Your task to perform on an android device: What's the weather today? Image 0: 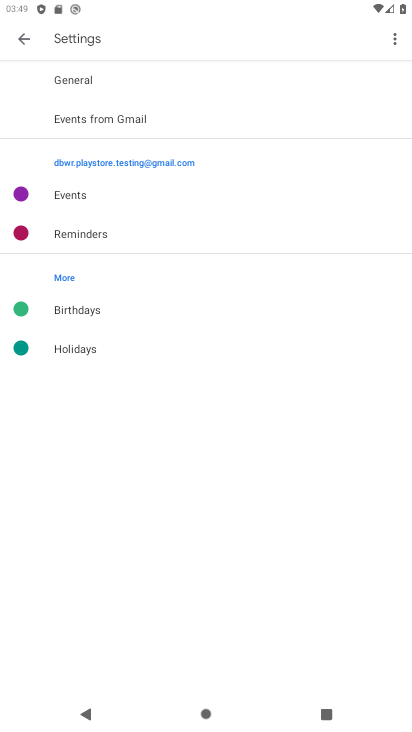
Step 0: press back button
Your task to perform on an android device: What's the weather today? Image 1: 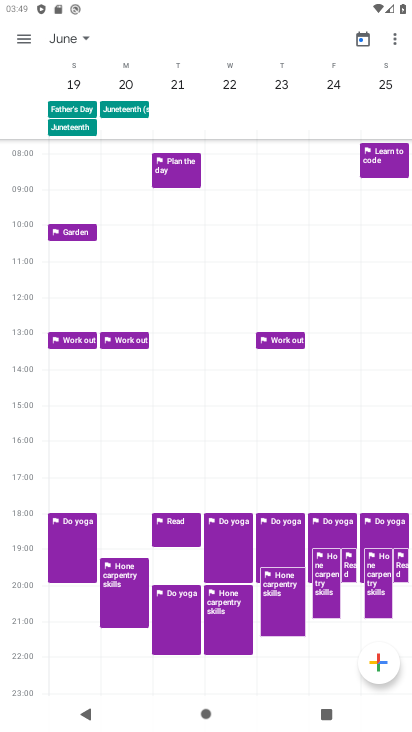
Step 1: press back button
Your task to perform on an android device: What's the weather today? Image 2: 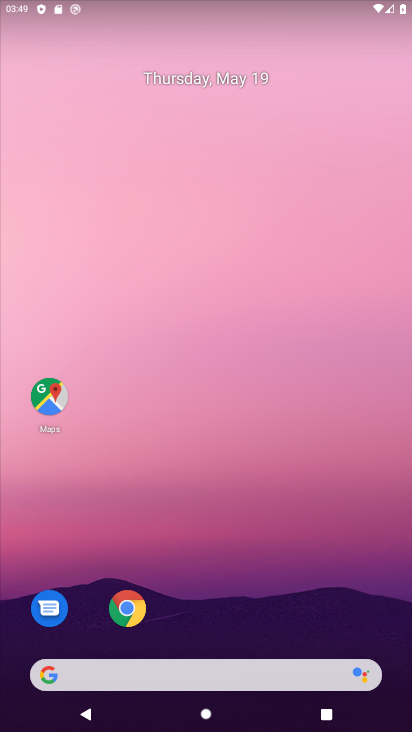
Step 2: drag from (241, 570) to (241, 111)
Your task to perform on an android device: What's the weather today? Image 3: 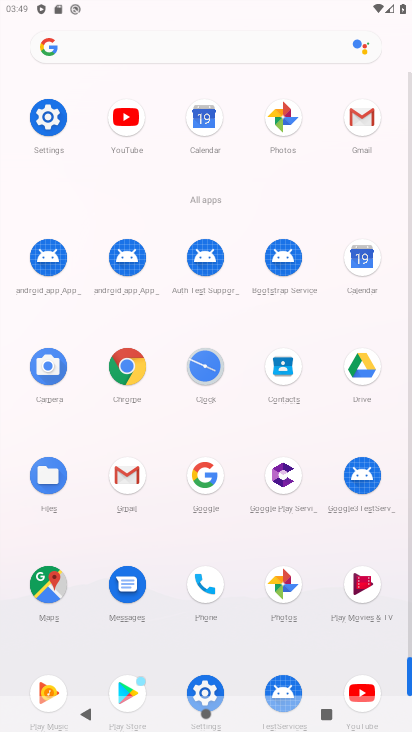
Step 3: click (202, 474)
Your task to perform on an android device: What's the weather today? Image 4: 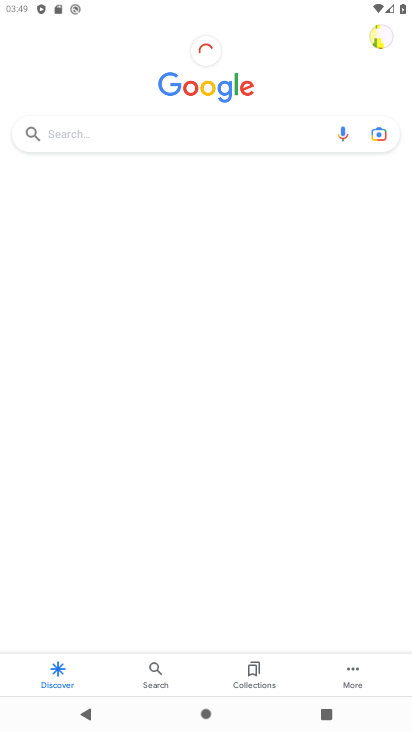
Step 4: click (114, 141)
Your task to perform on an android device: What's the weather today? Image 5: 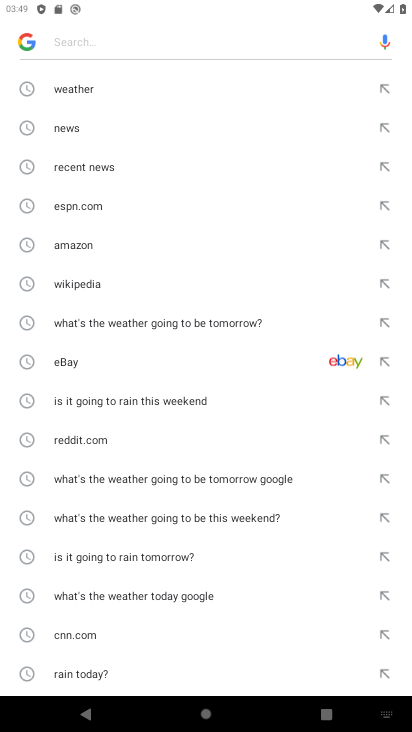
Step 5: type "weather"
Your task to perform on an android device: What's the weather today? Image 6: 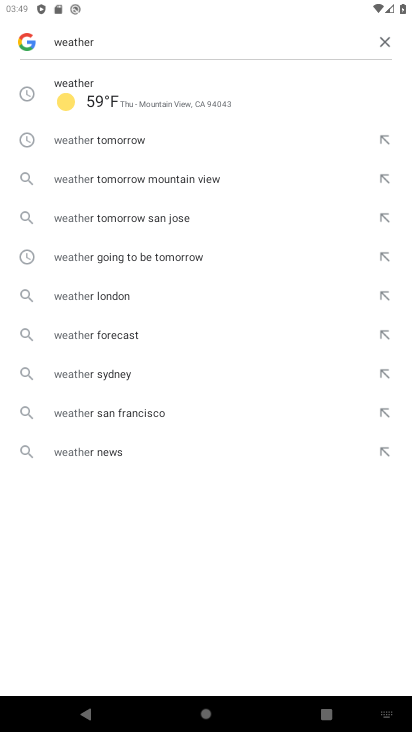
Step 6: click (139, 112)
Your task to perform on an android device: What's the weather today? Image 7: 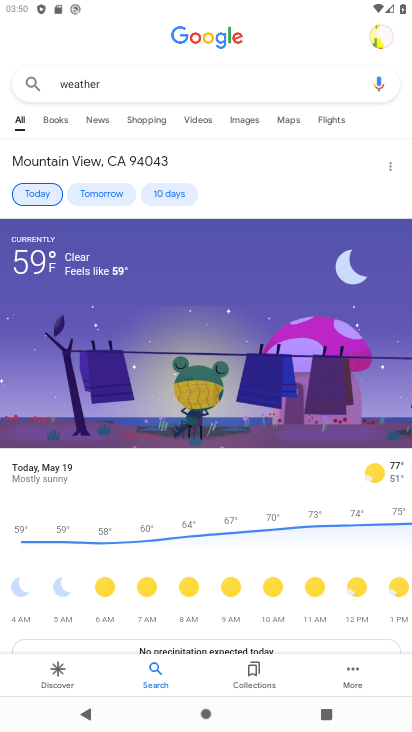
Step 7: task complete